Your task to perform on an android device: See recent photos Image 0: 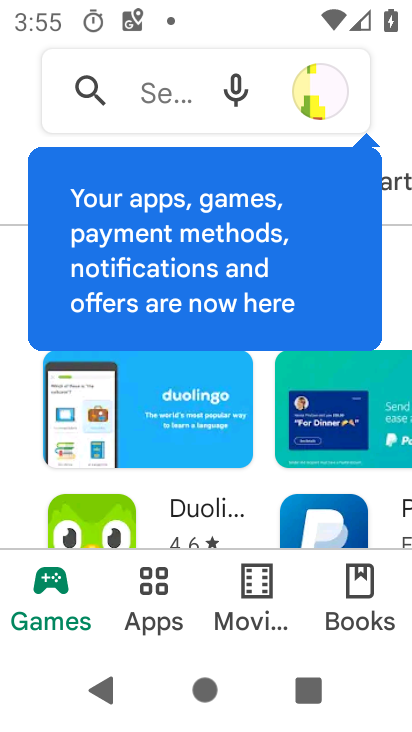
Step 0: press home button
Your task to perform on an android device: See recent photos Image 1: 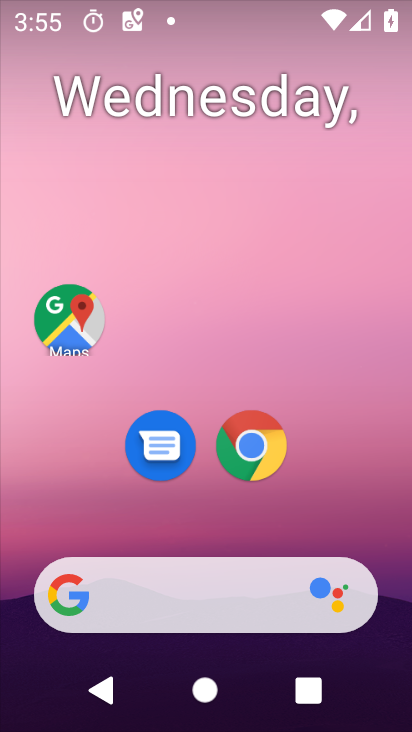
Step 1: drag from (201, 443) to (229, 90)
Your task to perform on an android device: See recent photos Image 2: 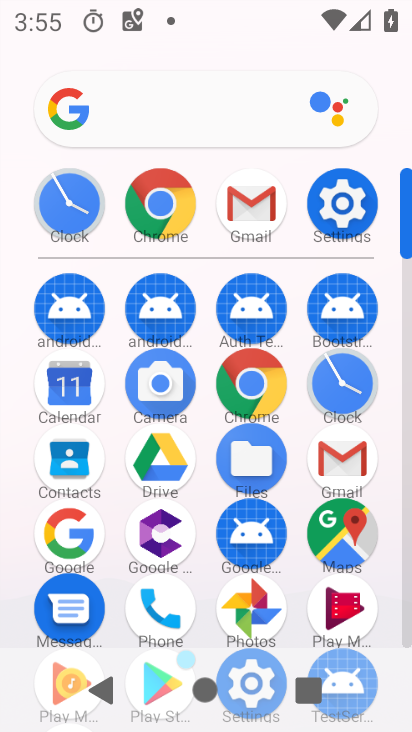
Step 2: drag from (210, 352) to (244, 32)
Your task to perform on an android device: See recent photos Image 3: 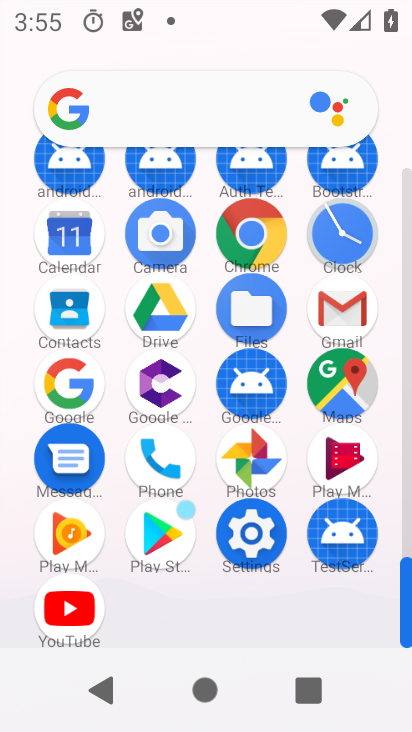
Step 3: click (242, 460)
Your task to perform on an android device: See recent photos Image 4: 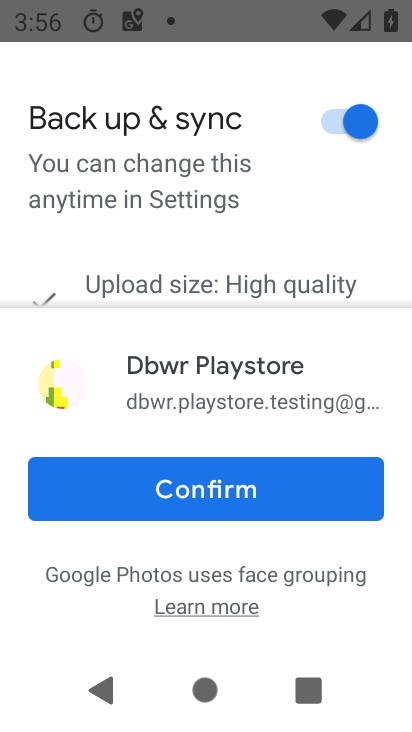
Step 4: click (243, 477)
Your task to perform on an android device: See recent photos Image 5: 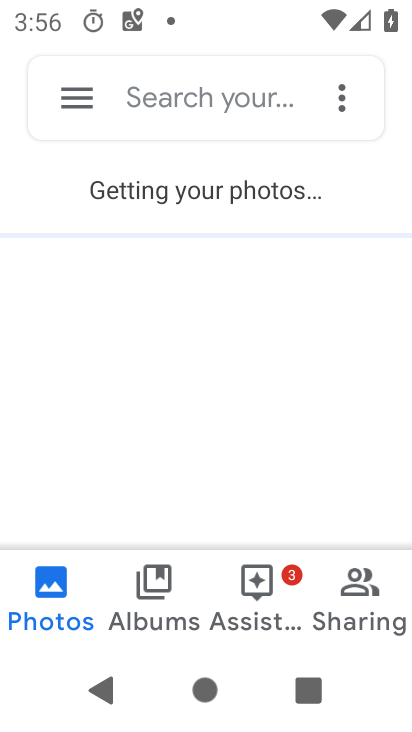
Step 5: task complete